Your task to perform on an android device: Open the calendar and show me this week's events? Image 0: 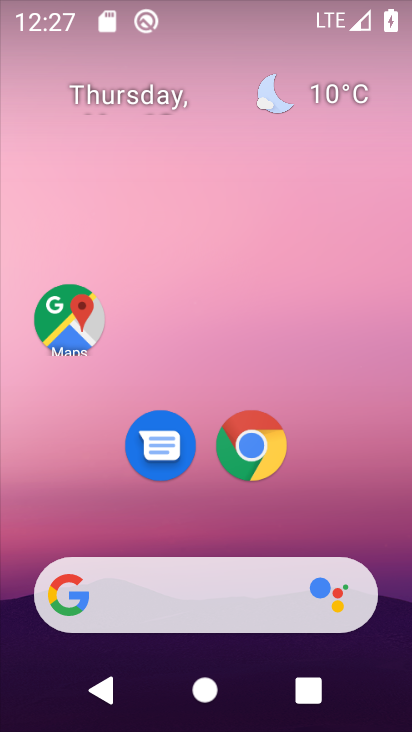
Step 0: drag from (227, 528) to (234, 0)
Your task to perform on an android device: Open the calendar and show me this week's events? Image 1: 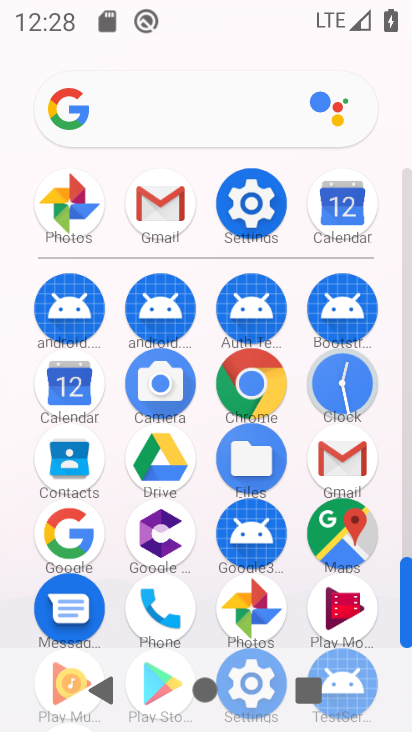
Step 1: click (68, 389)
Your task to perform on an android device: Open the calendar and show me this week's events? Image 2: 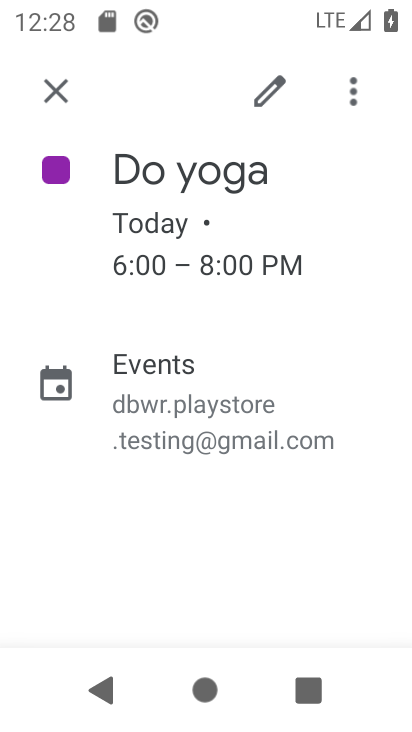
Step 2: click (51, 101)
Your task to perform on an android device: Open the calendar and show me this week's events? Image 3: 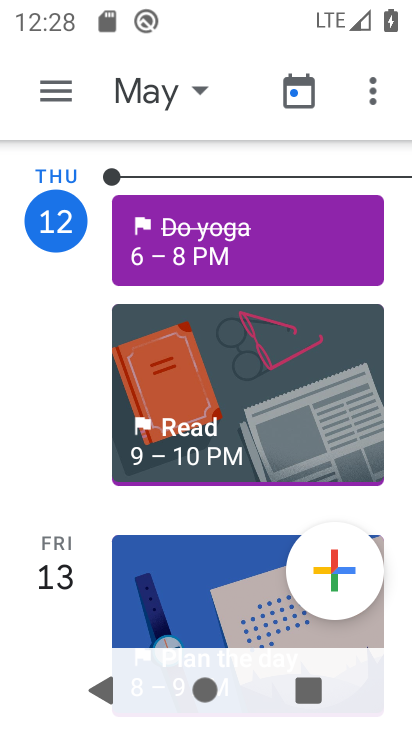
Step 3: drag from (196, 607) to (226, 94)
Your task to perform on an android device: Open the calendar and show me this week's events? Image 4: 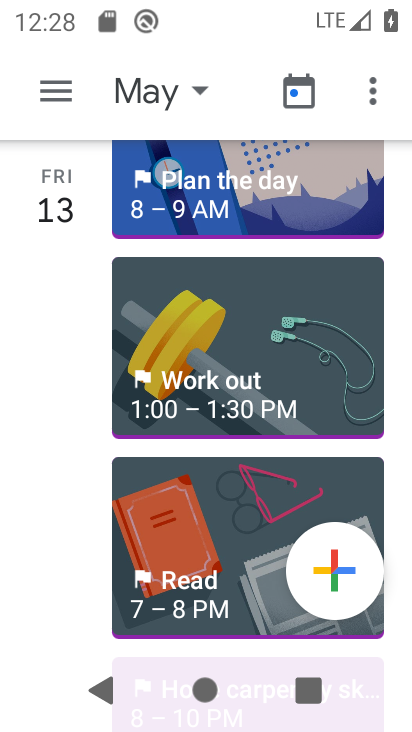
Step 4: drag from (198, 601) to (253, 85)
Your task to perform on an android device: Open the calendar and show me this week's events? Image 5: 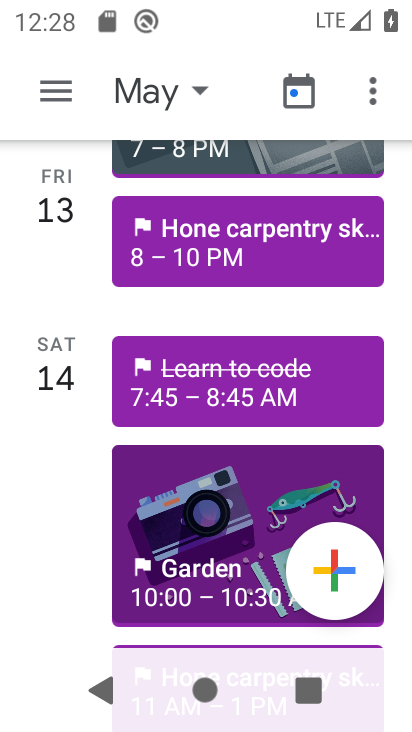
Step 5: click (192, 241)
Your task to perform on an android device: Open the calendar and show me this week's events? Image 6: 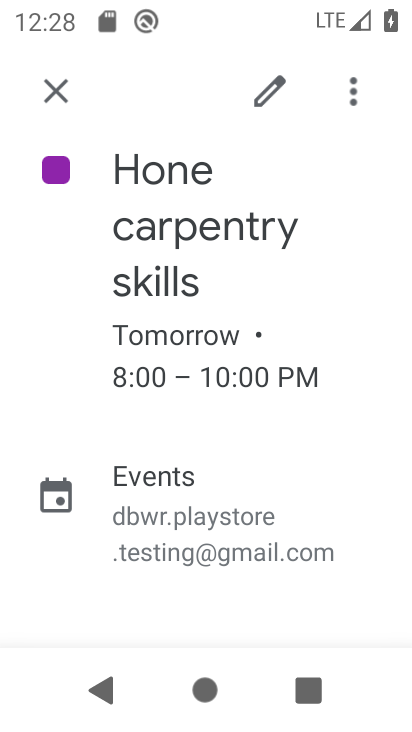
Step 6: task complete